Your task to perform on an android device: Open calendar and show me the first week of next month Image 0: 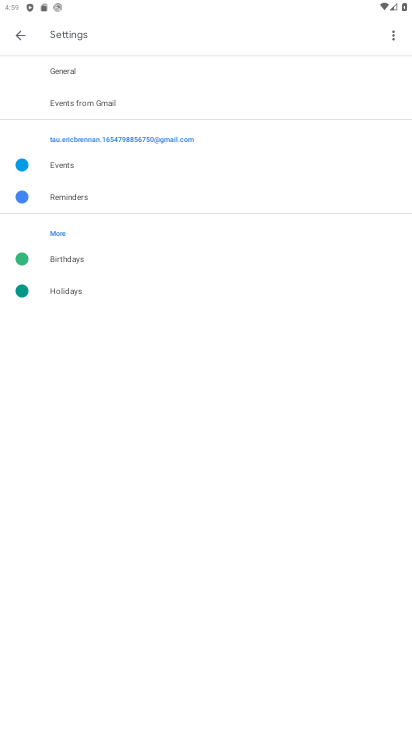
Step 0: press home button
Your task to perform on an android device: Open calendar and show me the first week of next month Image 1: 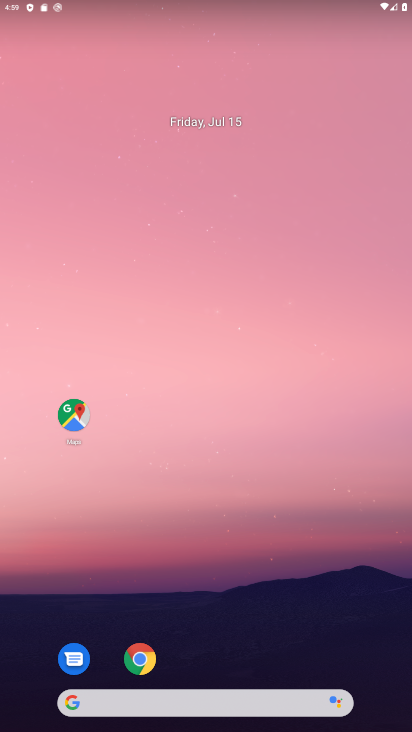
Step 1: click (189, 124)
Your task to perform on an android device: Open calendar and show me the first week of next month Image 2: 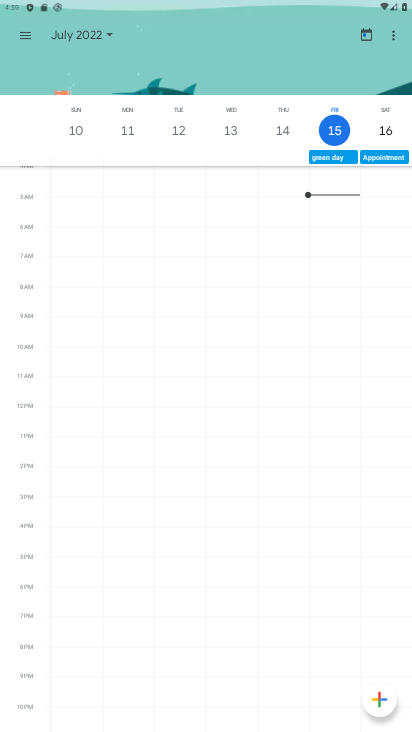
Step 2: click (78, 36)
Your task to perform on an android device: Open calendar and show me the first week of next month Image 3: 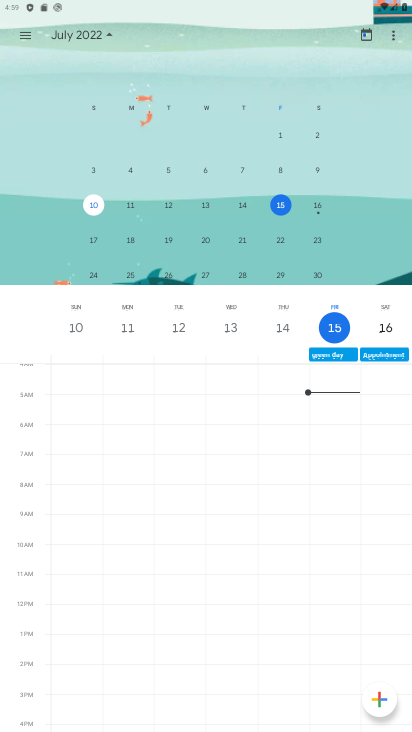
Step 3: task complete